Your task to perform on an android device: see tabs open on other devices in the chrome app Image 0: 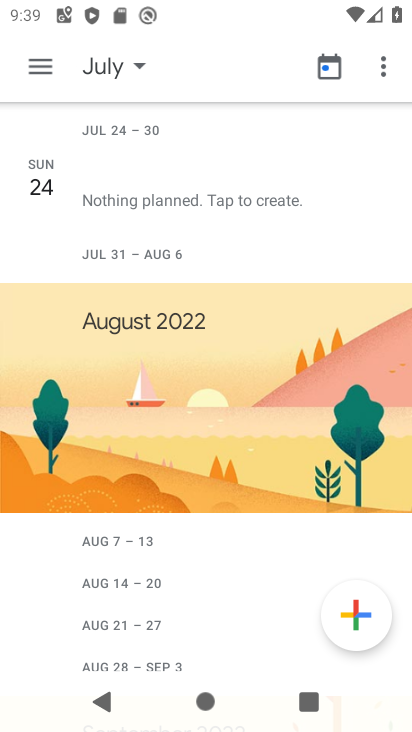
Step 0: press home button
Your task to perform on an android device: see tabs open on other devices in the chrome app Image 1: 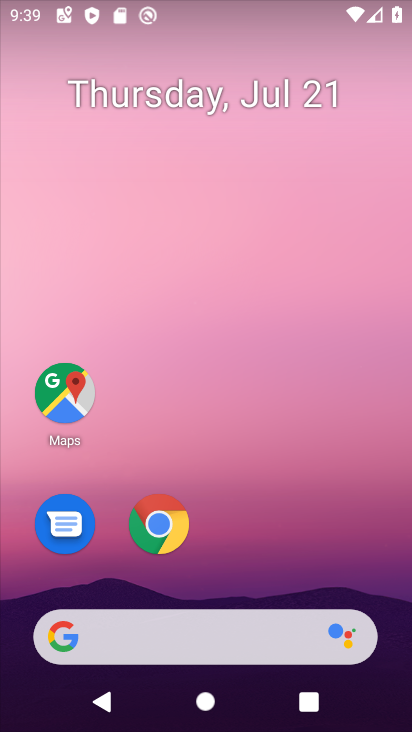
Step 1: click (171, 534)
Your task to perform on an android device: see tabs open on other devices in the chrome app Image 2: 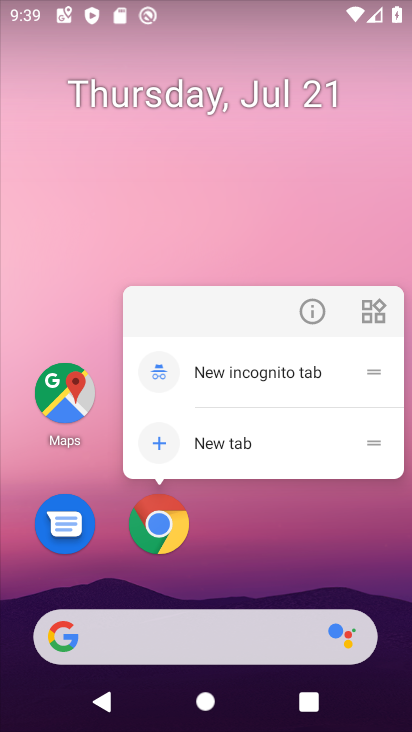
Step 2: click (158, 530)
Your task to perform on an android device: see tabs open on other devices in the chrome app Image 3: 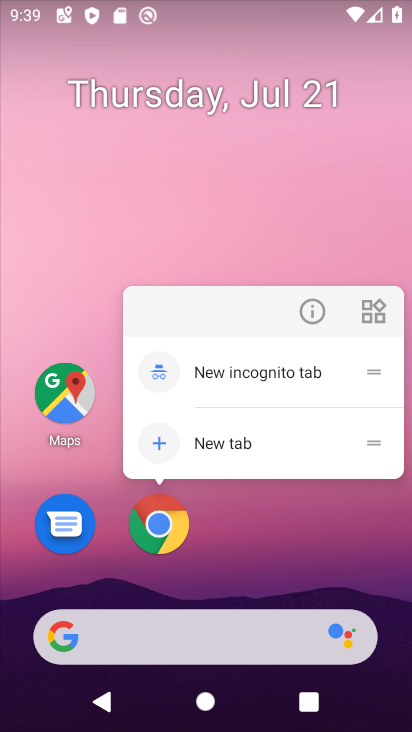
Step 3: click (158, 527)
Your task to perform on an android device: see tabs open on other devices in the chrome app Image 4: 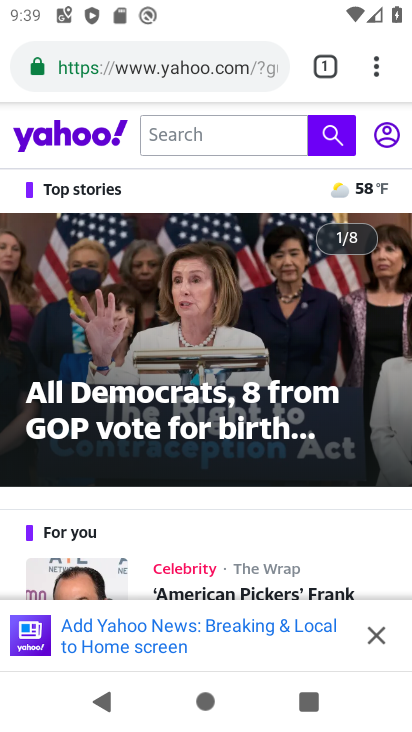
Step 4: task complete